Your task to perform on an android device: Open Maps and search for coffee Image 0: 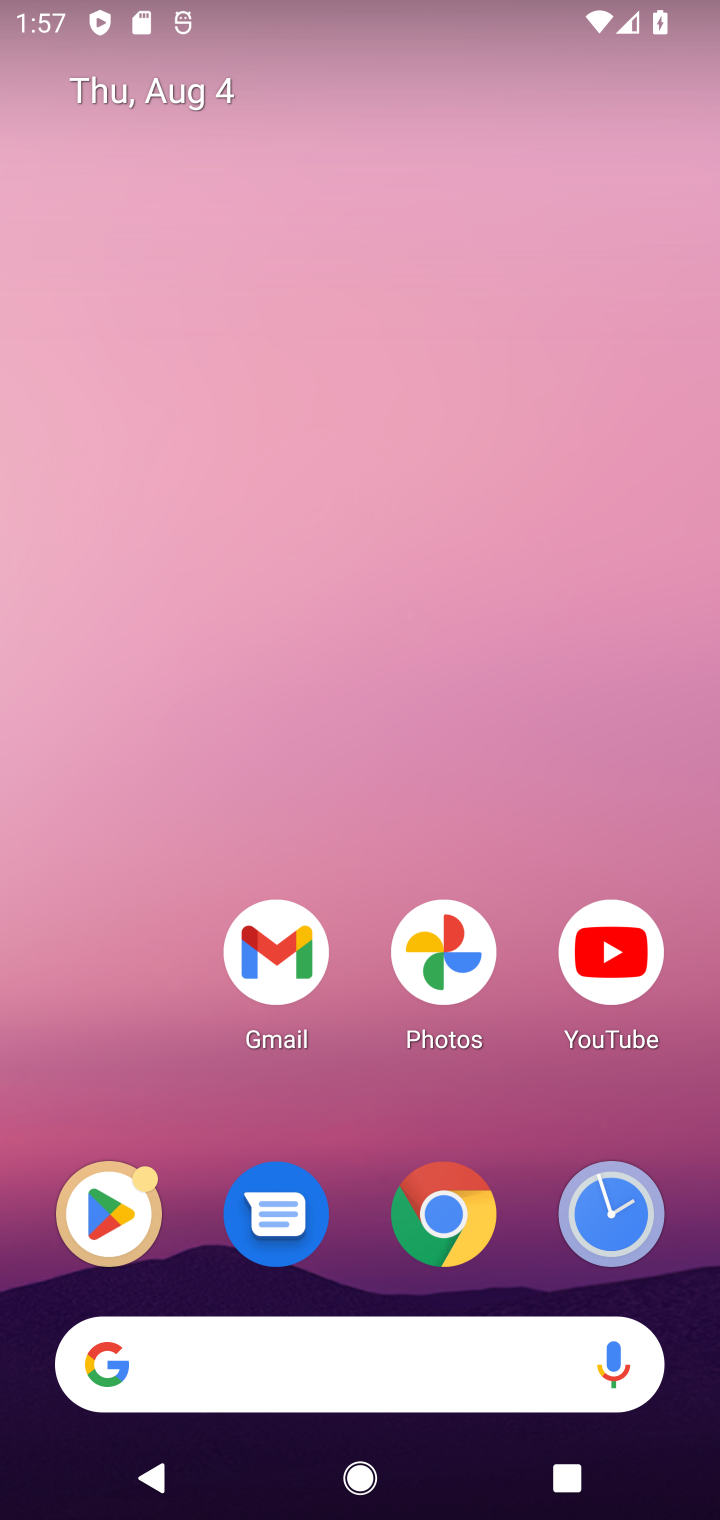
Step 0: drag from (357, 828) to (333, 46)
Your task to perform on an android device: Open Maps and search for coffee Image 1: 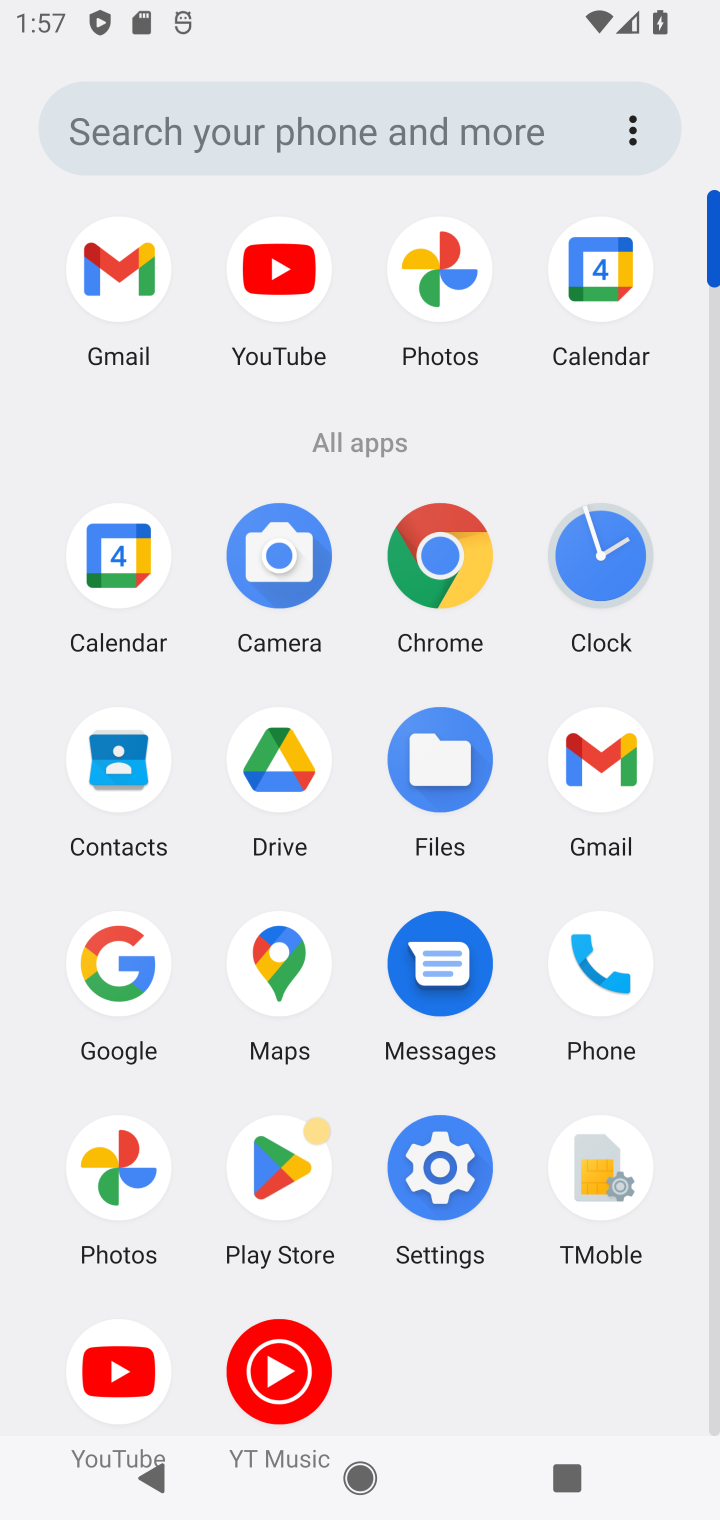
Step 1: click (271, 976)
Your task to perform on an android device: Open Maps and search for coffee Image 2: 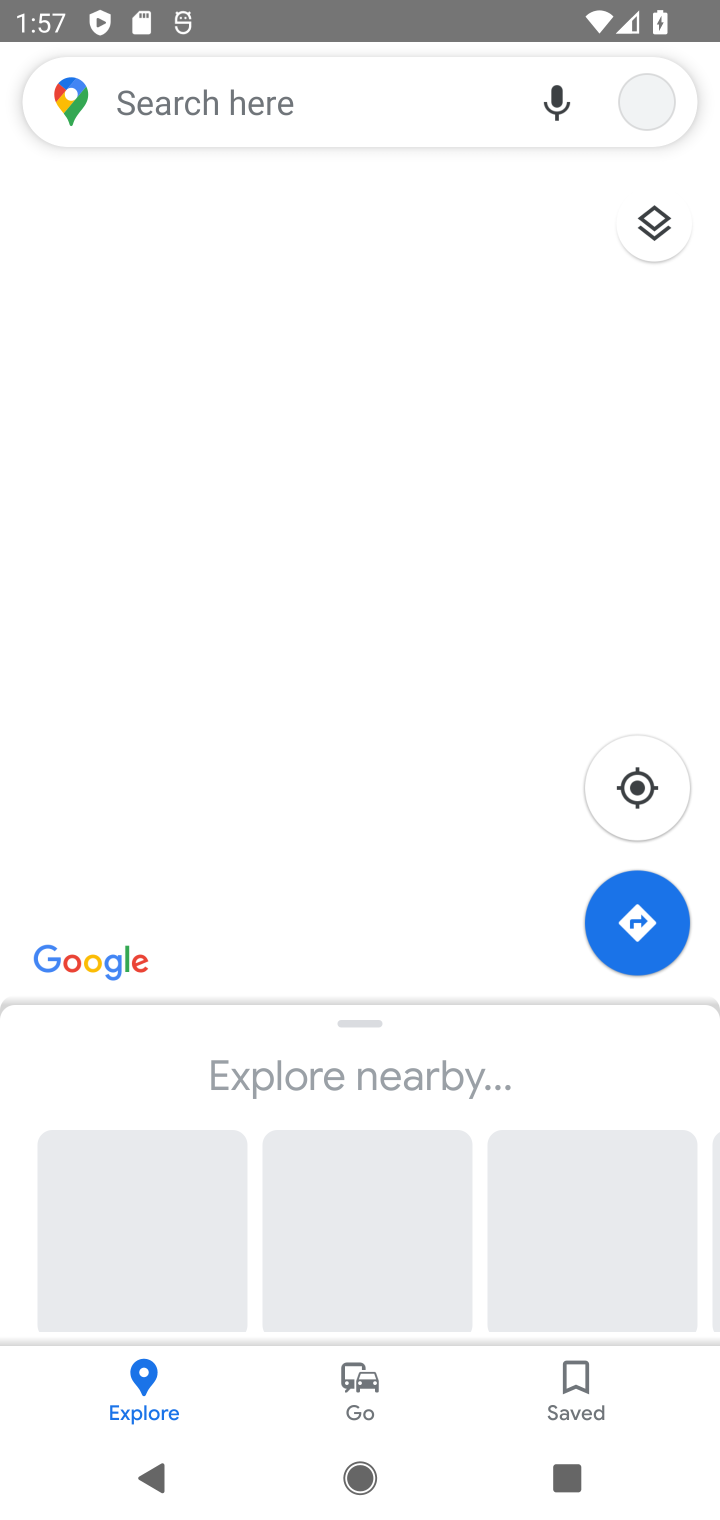
Step 2: click (211, 111)
Your task to perform on an android device: Open Maps and search for coffee Image 3: 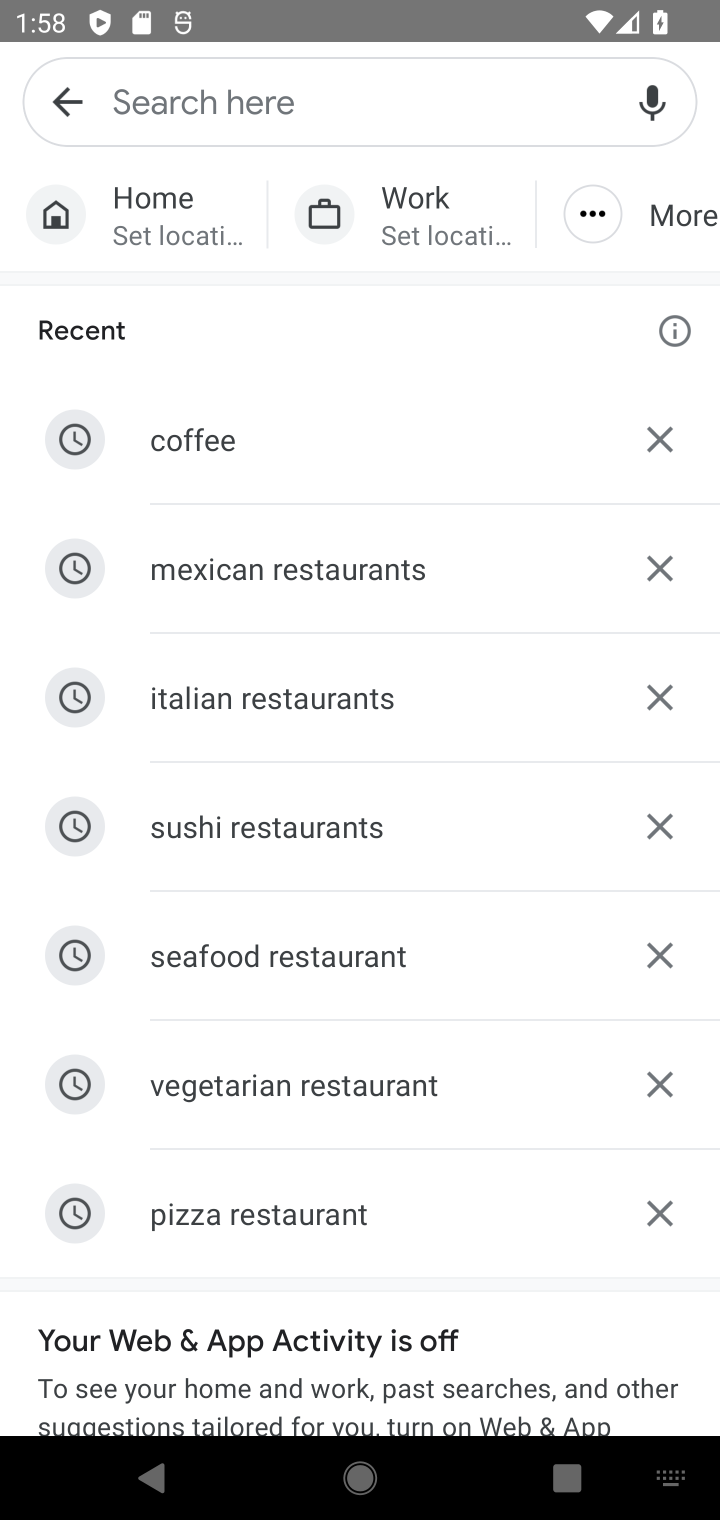
Step 3: click (188, 447)
Your task to perform on an android device: Open Maps and search for coffee Image 4: 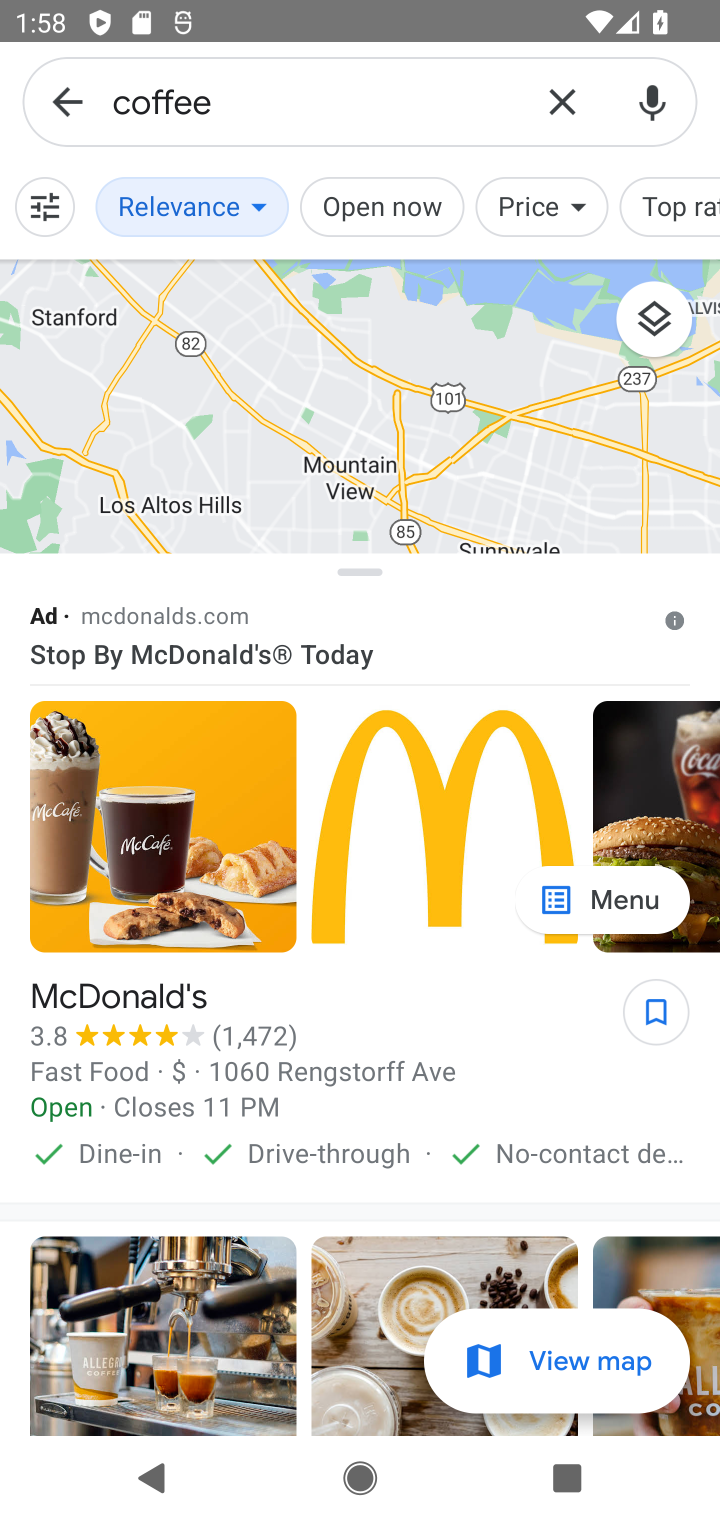
Step 4: task complete